Your task to perform on an android device: search for starred emails in the gmail app Image 0: 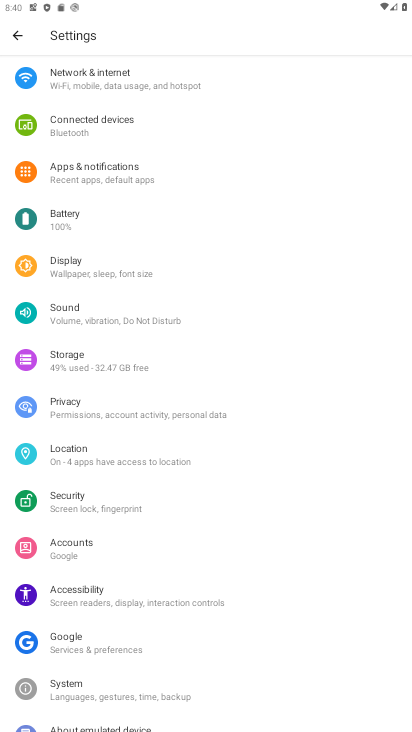
Step 0: press home button
Your task to perform on an android device: search for starred emails in the gmail app Image 1: 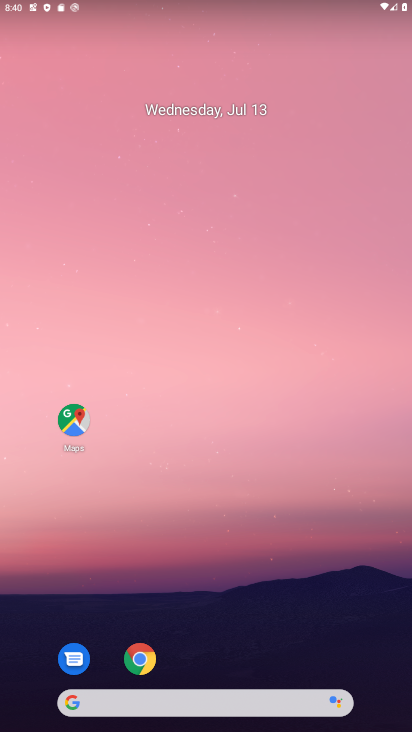
Step 1: drag from (189, 667) to (195, 282)
Your task to perform on an android device: search for starred emails in the gmail app Image 2: 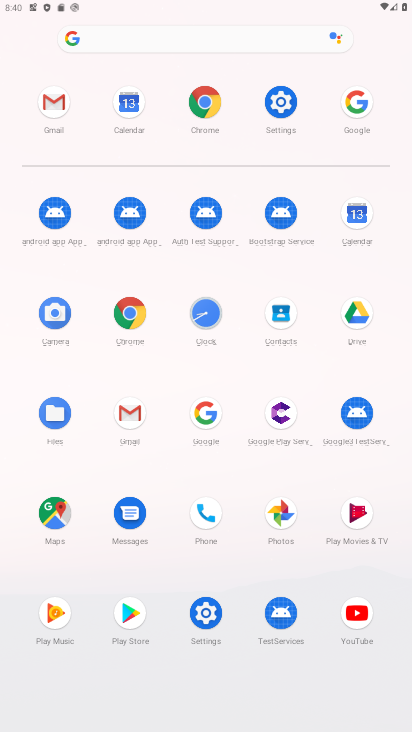
Step 2: click (53, 107)
Your task to perform on an android device: search for starred emails in the gmail app Image 3: 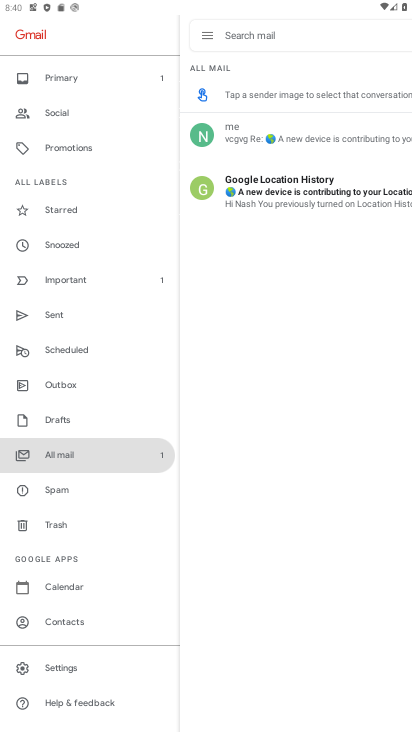
Step 3: click (91, 243)
Your task to perform on an android device: search for starred emails in the gmail app Image 4: 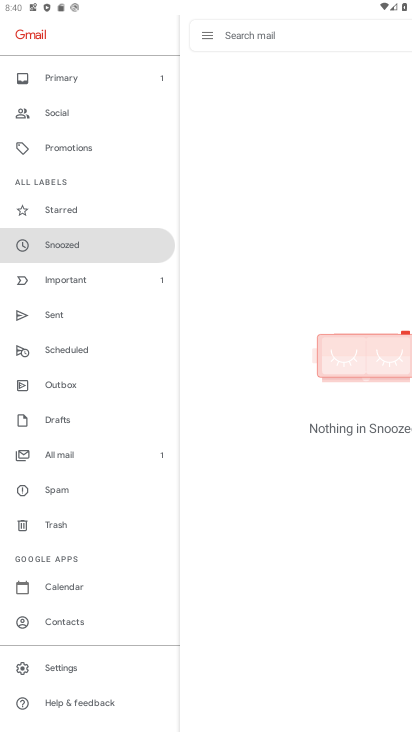
Step 4: click (92, 201)
Your task to perform on an android device: search for starred emails in the gmail app Image 5: 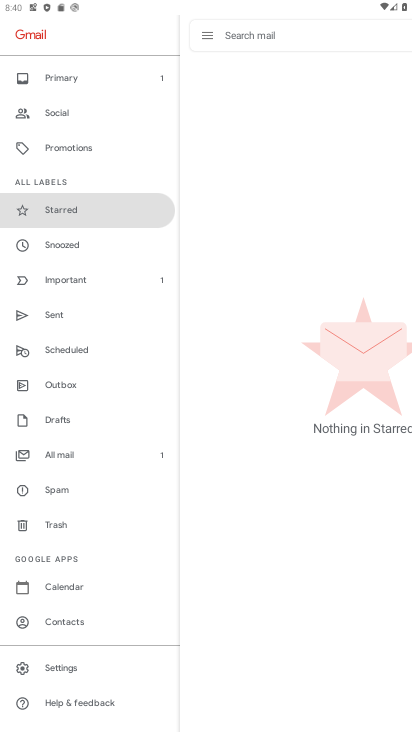
Step 5: task complete